Your task to perform on an android device: delete location history Image 0: 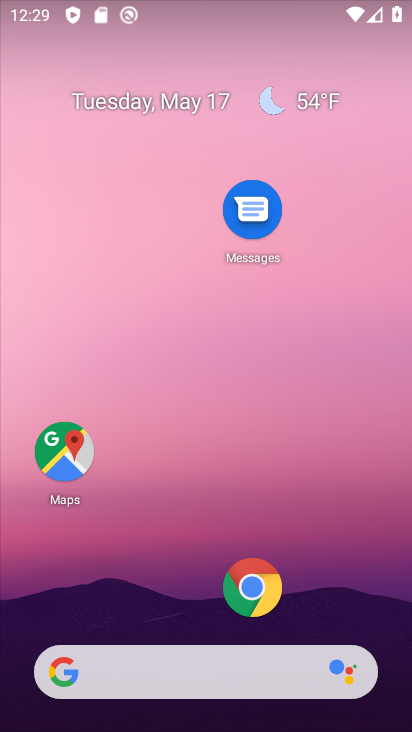
Step 0: click (67, 444)
Your task to perform on an android device: delete location history Image 1: 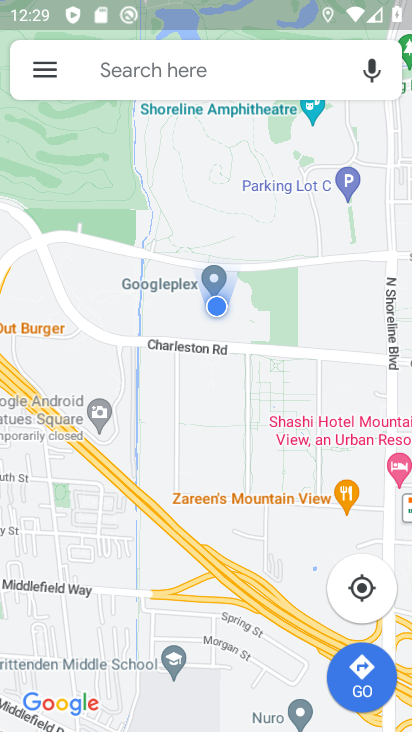
Step 1: click (34, 66)
Your task to perform on an android device: delete location history Image 2: 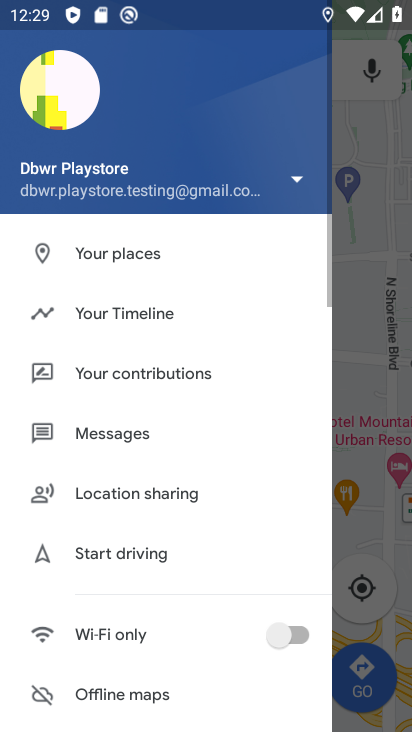
Step 2: click (110, 318)
Your task to perform on an android device: delete location history Image 3: 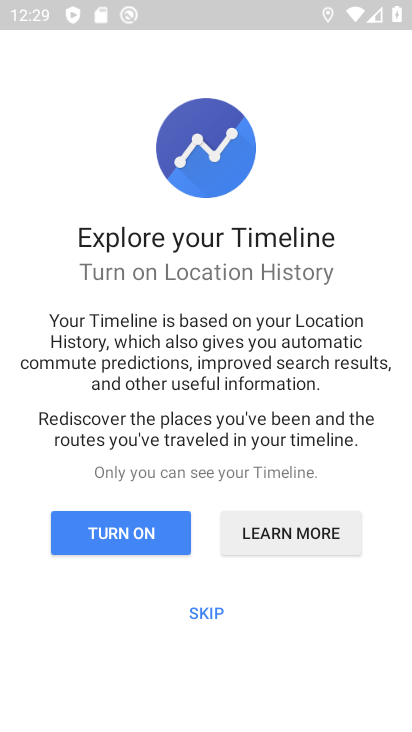
Step 3: click (222, 602)
Your task to perform on an android device: delete location history Image 4: 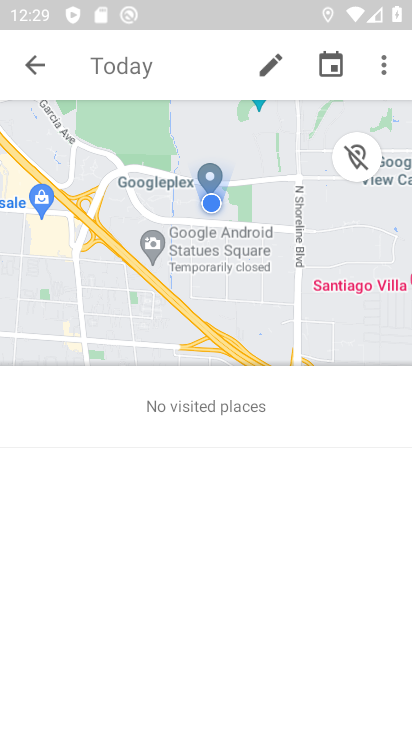
Step 4: click (384, 61)
Your task to perform on an android device: delete location history Image 5: 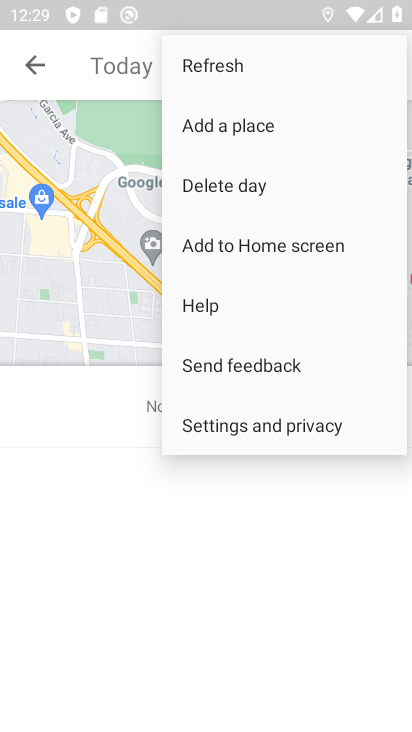
Step 5: click (236, 424)
Your task to perform on an android device: delete location history Image 6: 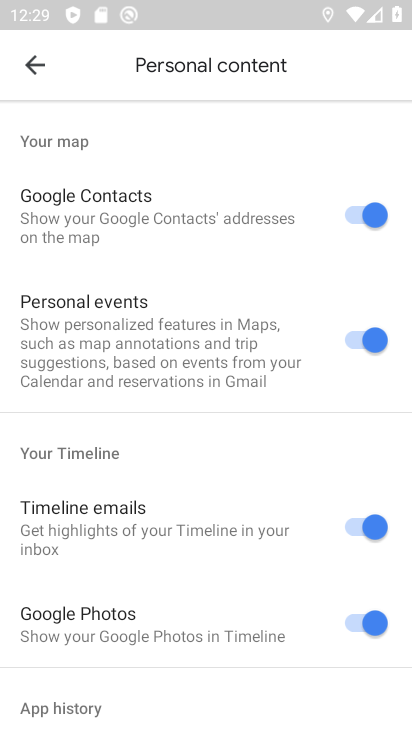
Step 6: drag from (215, 533) to (271, 153)
Your task to perform on an android device: delete location history Image 7: 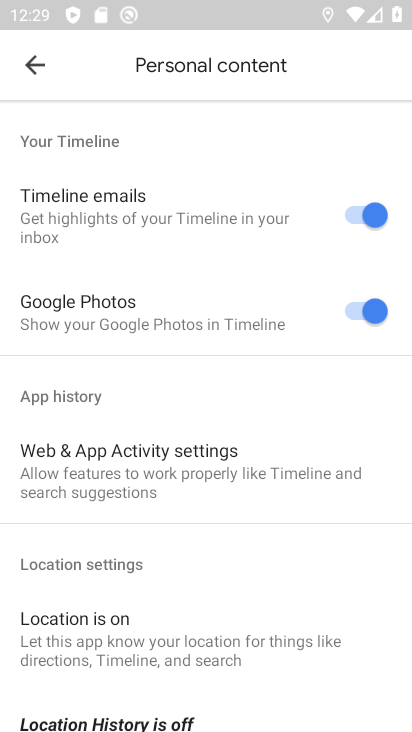
Step 7: drag from (263, 405) to (274, 350)
Your task to perform on an android device: delete location history Image 8: 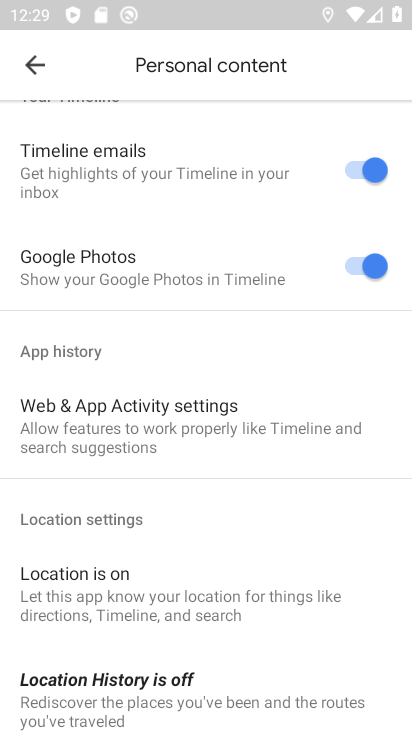
Step 8: drag from (184, 682) to (258, 260)
Your task to perform on an android device: delete location history Image 9: 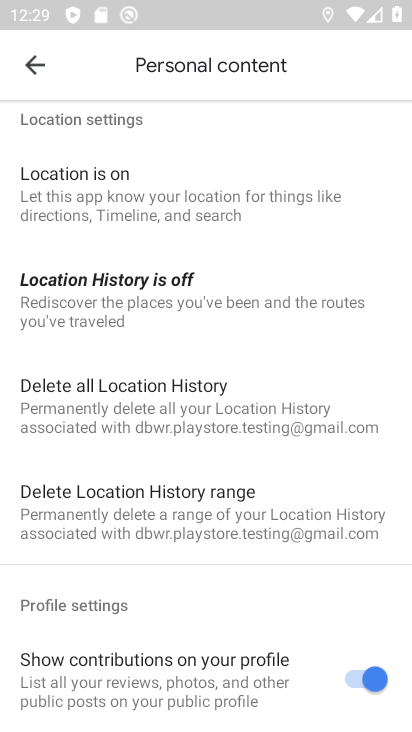
Step 9: click (192, 400)
Your task to perform on an android device: delete location history Image 10: 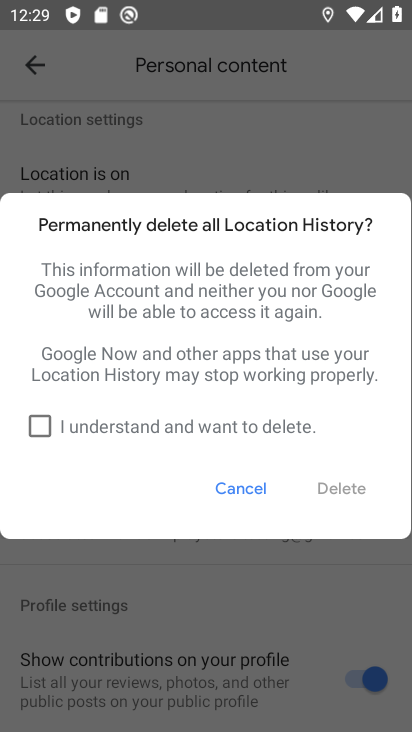
Step 10: click (113, 431)
Your task to perform on an android device: delete location history Image 11: 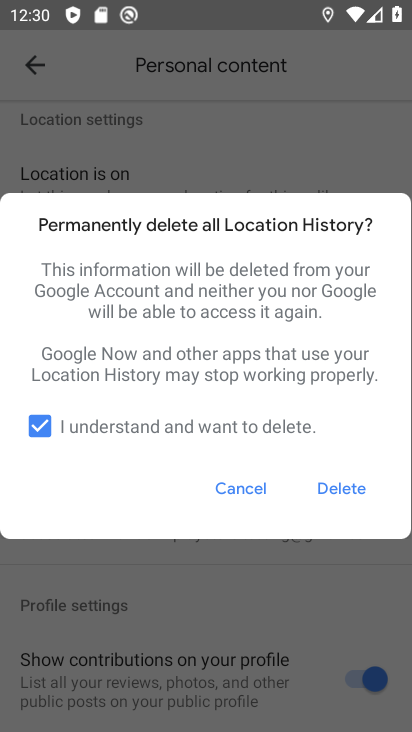
Step 11: click (346, 492)
Your task to perform on an android device: delete location history Image 12: 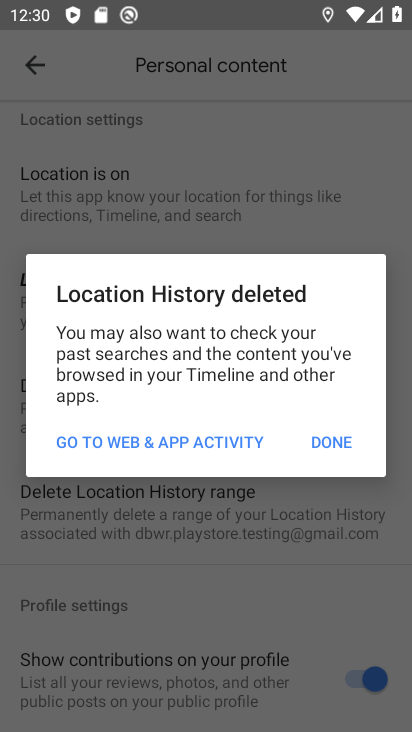
Step 12: click (333, 438)
Your task to perform on an android device: delete location history Image 13: 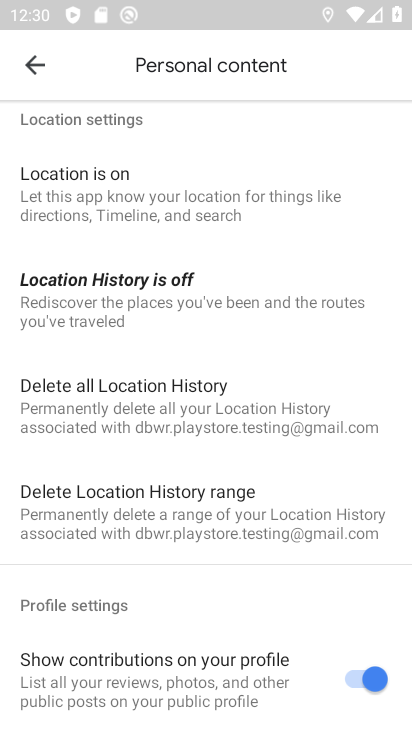
Step 13: press home button
Your task to perform on an android device: delete location history Image 14: 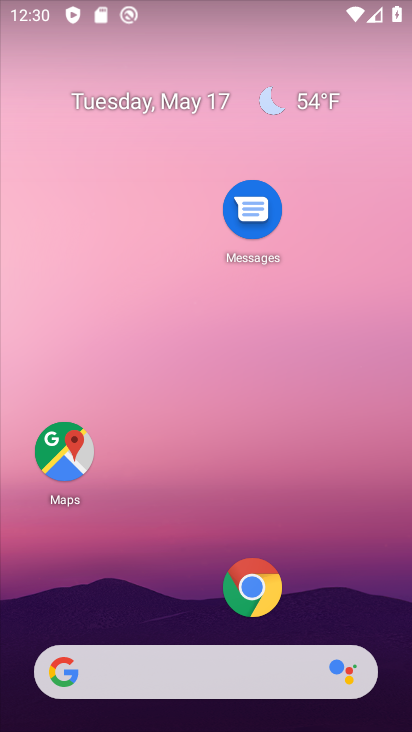
Step 14: drag from (170, 593) to (206, 141)
Your task to perform on an android device: delete location history Image 15: 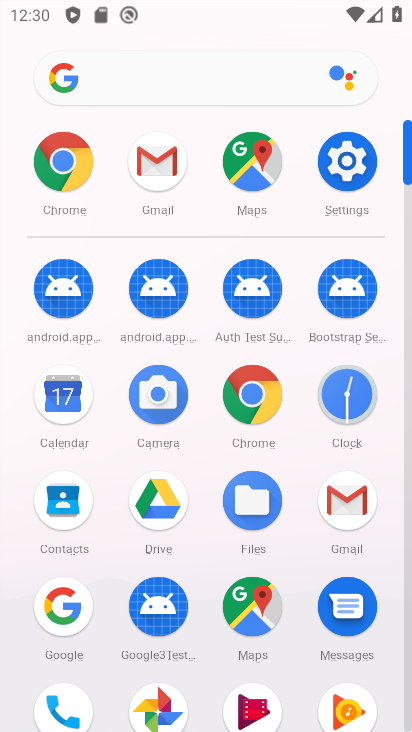
Step 15: click (247, 624)
Your task to perform on an android device: delete location history Image 16: 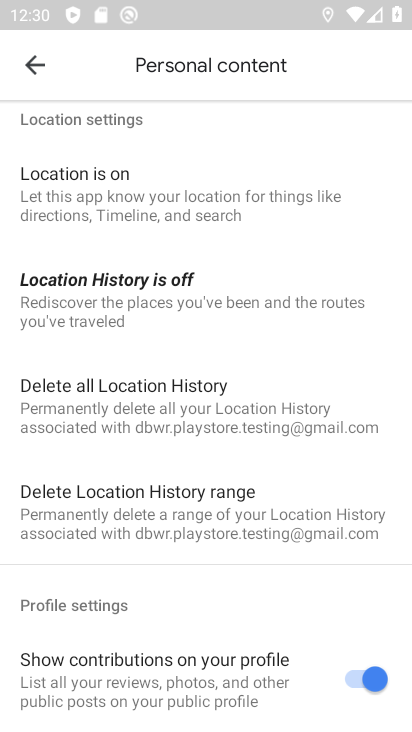
Step 16: click (196, 391)
Your task to perform on an android device: delete location history Image 17: 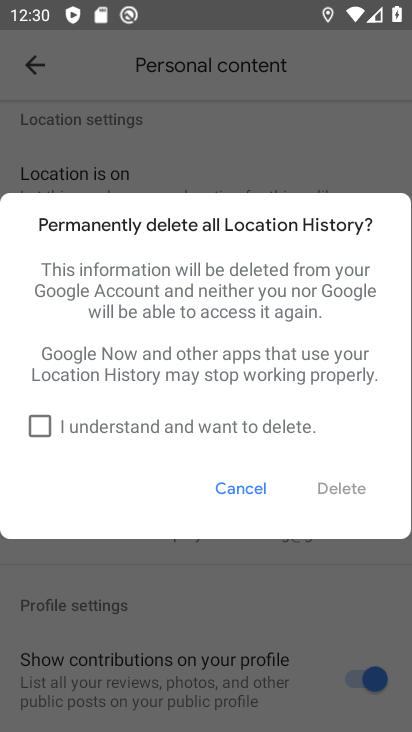
Step 17: click (219, 429)
Your task to perform on an android device: delete location history Image 18: 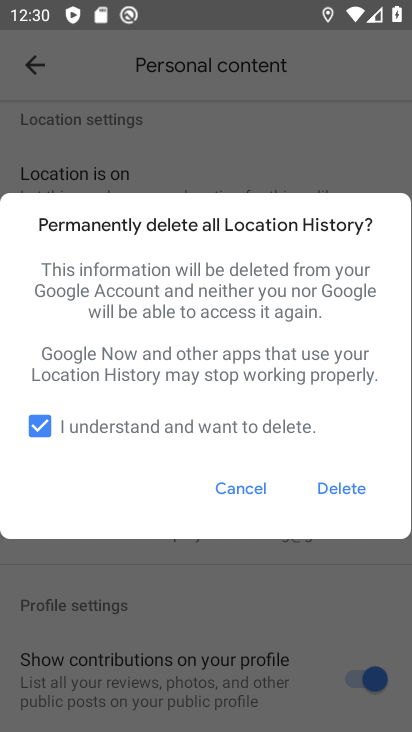
Step 18: click (350, 486)
Your task to perform on an android device: delete location history Image 19: 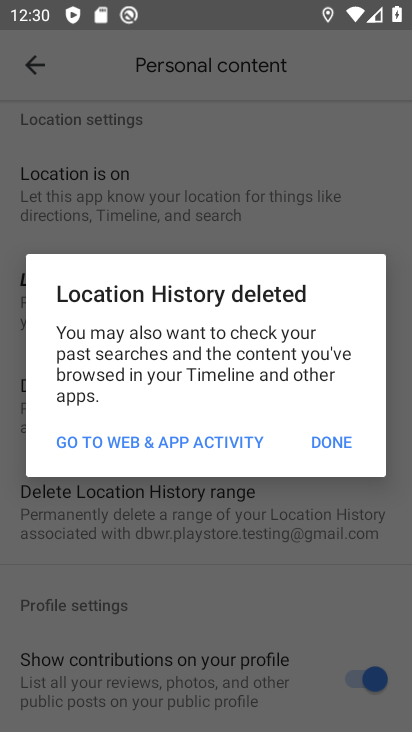
Step 19: click (323, 439)
Your task to perform on an android device: delete location history Image 20: 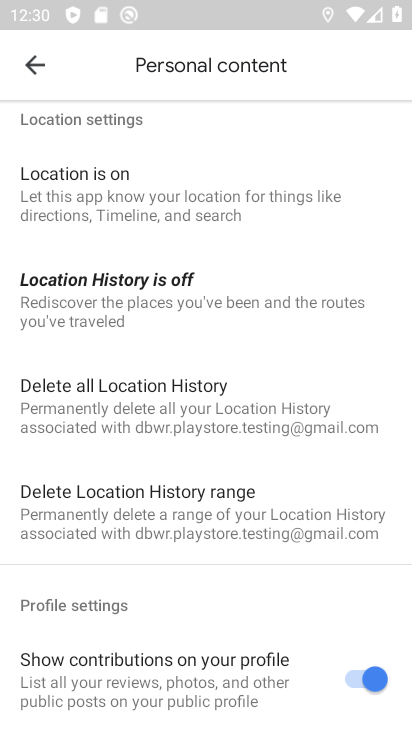
Step 20: task complete